Your task to perform on an android device: turn on sleep mode Image 0: 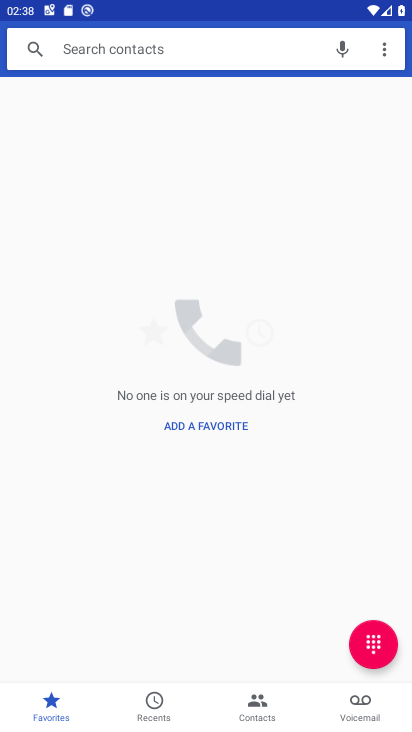
Step 0: press home button
Your task to perform on an android device: turn on sleep mode Image 1: 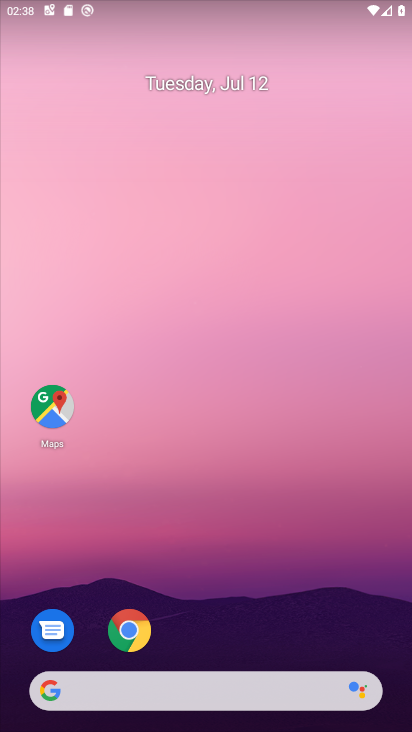
Step 1: drag from (393, 662) to (340, 140)
Your task to perform on an android device: turn on sleep mode Image 2: 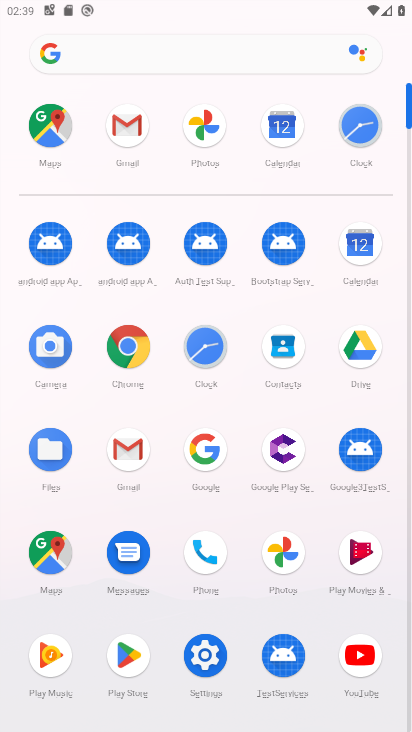
Step 2: click (203, 656)
Your task to perform on an android device: turn on sleep mode Image 3: 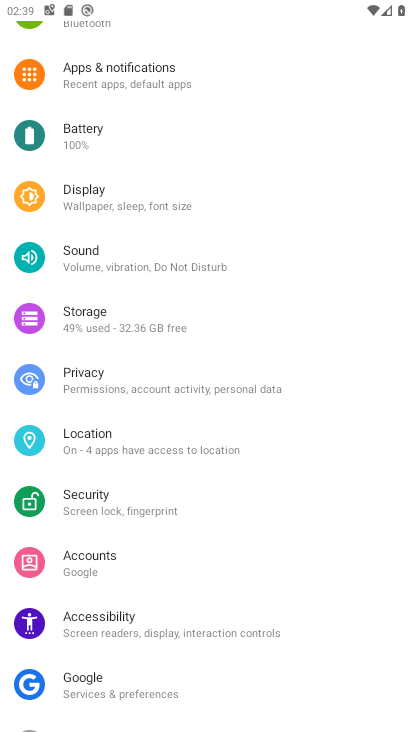
Step 3: drag from (279, 218) to (315, 500)
Your task to perform on an android device: turn on sleep mode Image 4: 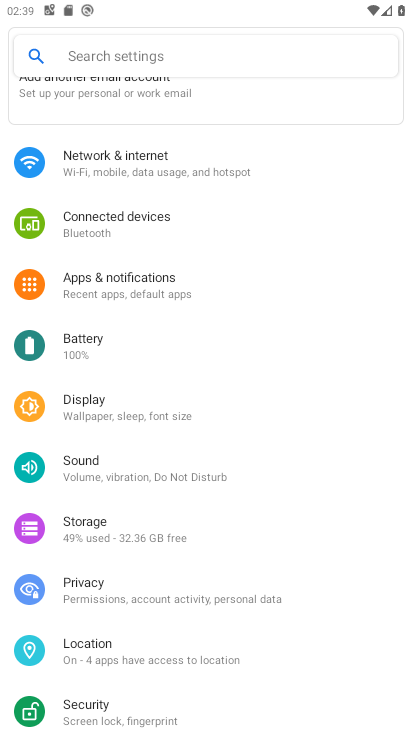
Step 4: click (75, 409)
Your task to perform on an android device: turn on sleep mode Image 5: 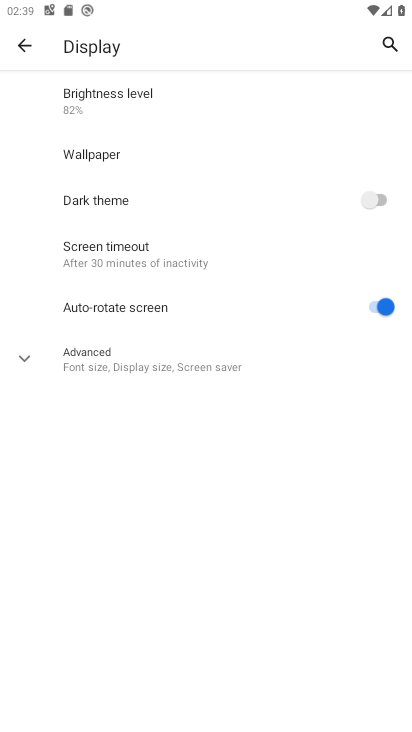
Step 5: click (17, 352)
Your task to perform on an android device: turn on sleep mode Image 6: 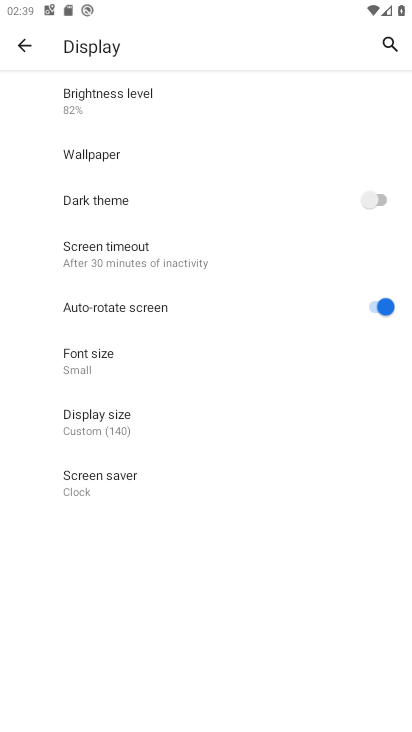
Step 6: task complete